Your task to perform on an android device: delete browsing data in the chrome app Image 0: 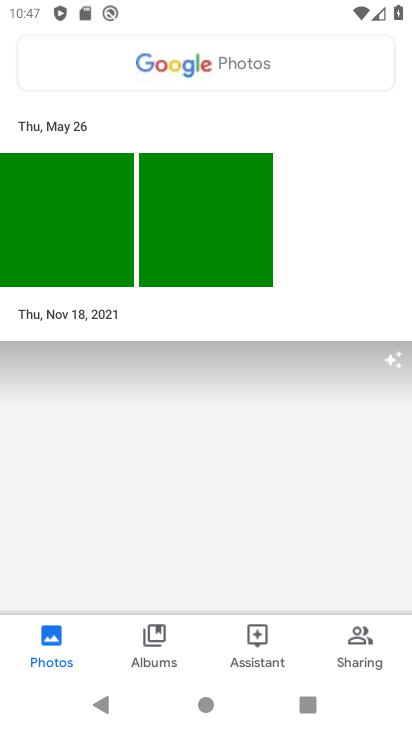
Step 0: press home button
Your task to perform on an android device: delete browsing data in the chrome app Image 1: 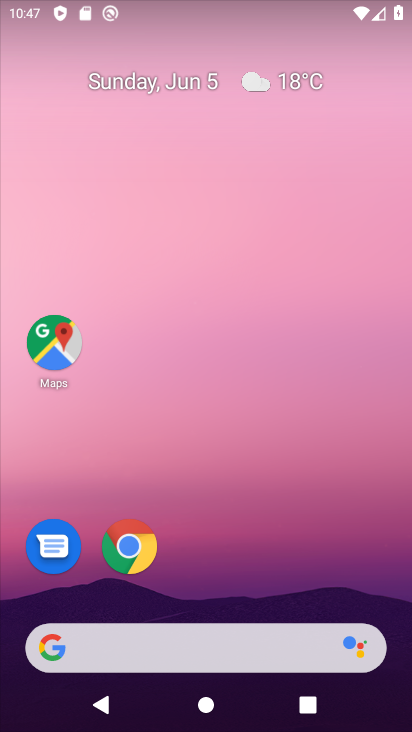
Step 1: click (121, 536)
Your task to perform on an android device: delete browsing data in the chrome app Image 2: 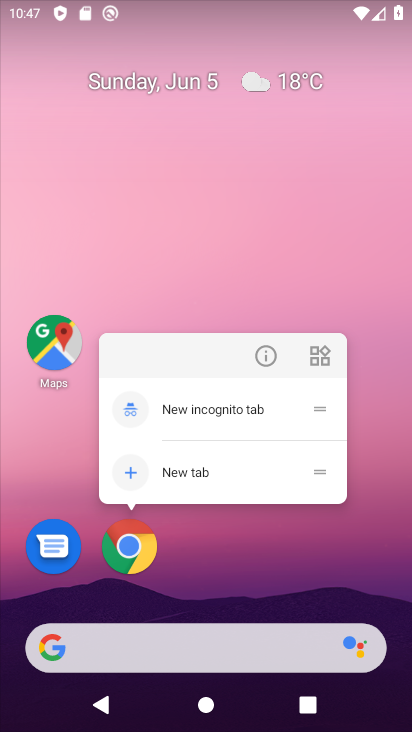
Step 2: click (142, 553)
Your task to perform on an android device: delete browsing data in the chrome app Image 3: 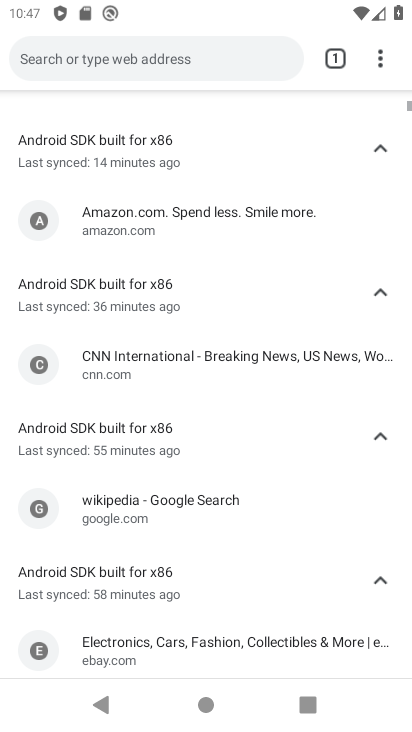
Step 3: click (380, 56)
Your task to perform on an android device: delete browsing data in the chrome app Image 4: 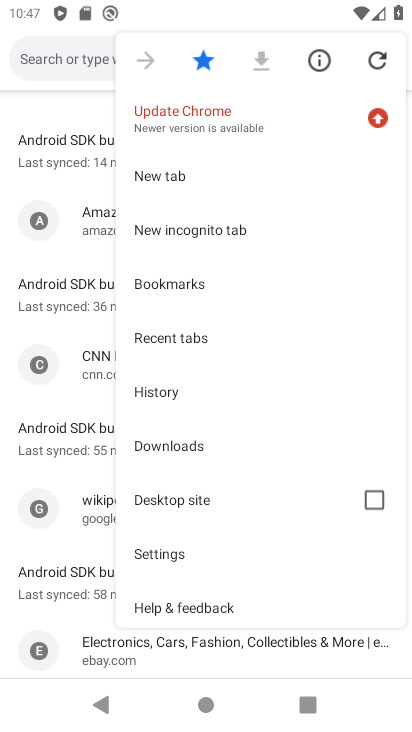
Step 4: click (174, 554)
Your task to perform on an android device: delete browsing data in the chrome app Image 5: 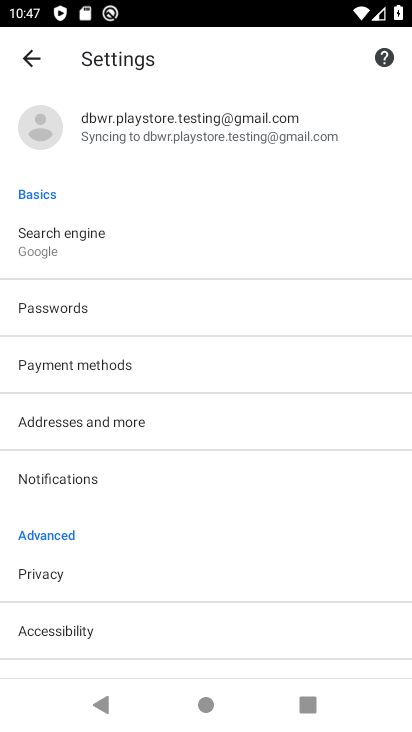
Step 5: click (86, 577)
Your task to perform on an android device: delete browsing data in the chrome app Image 6: 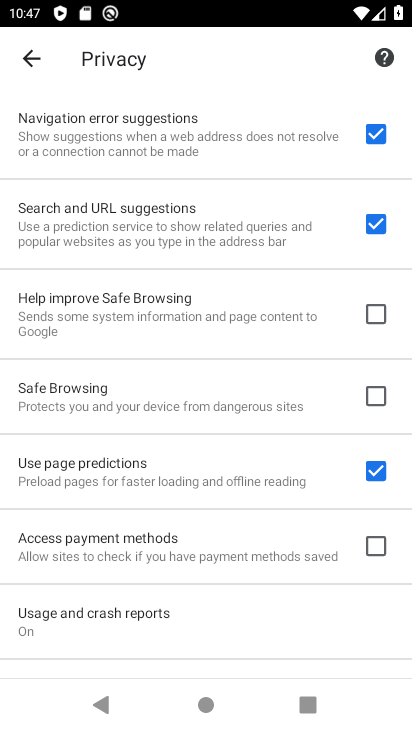
Step 6: drag from (228, 609) to (287, 170)
Your task to perform on an android device: delete browsing data in the chrome app Image 7: 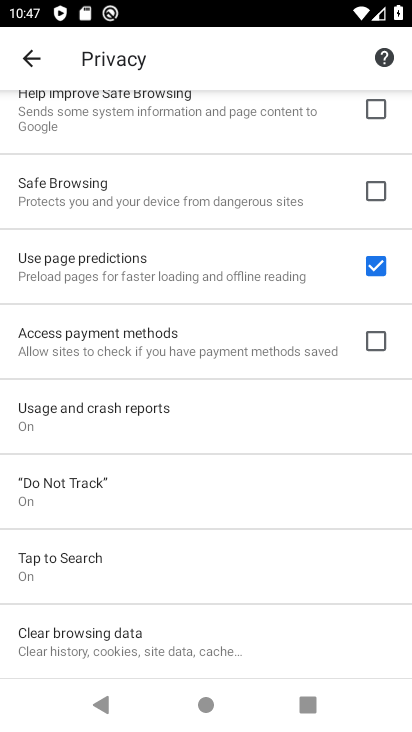
Step 7: click (131, 645)
Your task to perform on an android device: delete browsing data in the chrome app Image 8: 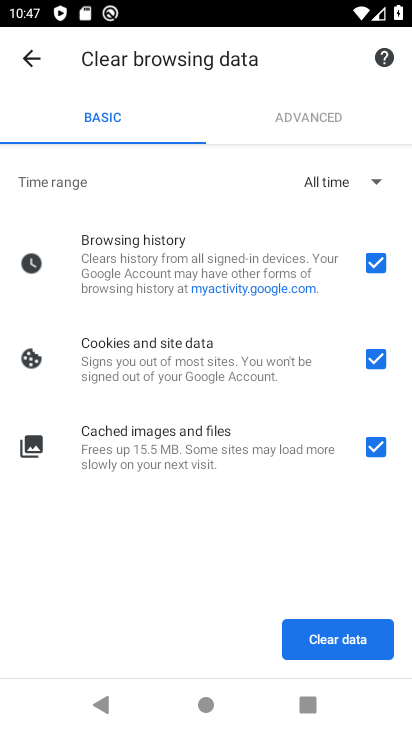
Step 8: click (383, 363)
Your task to perform on an android device: delete browsing data in the chrome app Image 9: 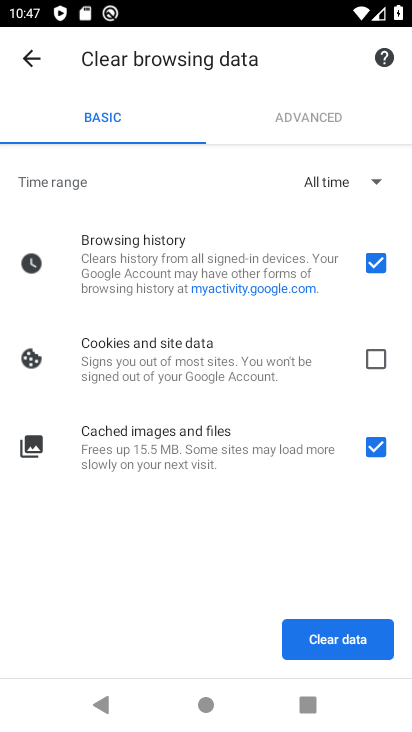
Step 9: click (378, 454)
Your task to perform on an android device: delete browsing data in the chrome app Image 10: 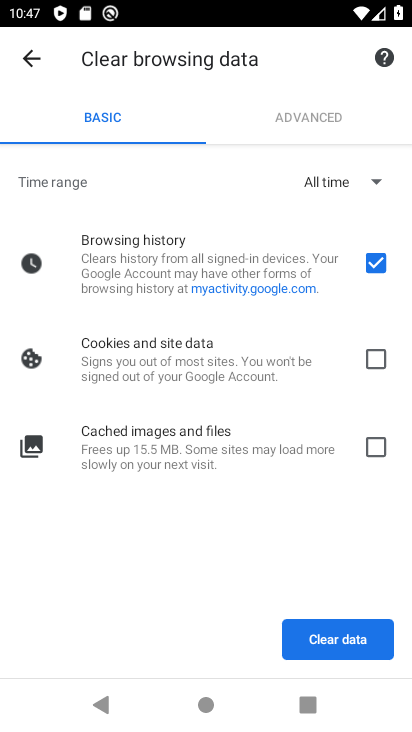
Step 10: click (320, 640)
Your task to perform on an android device: delete browsing data in the chrome app Image 11: 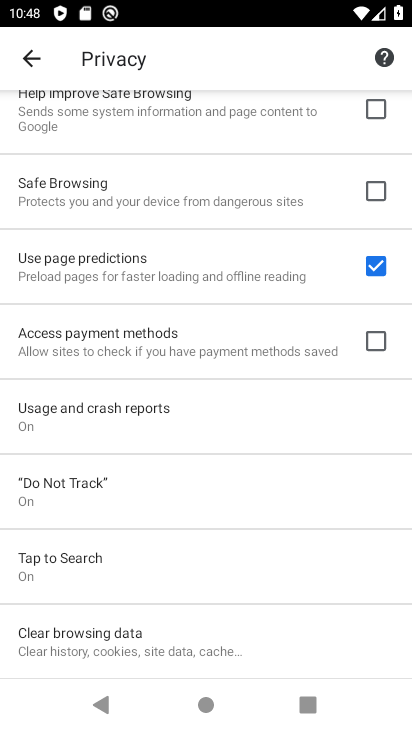
Step 11: task complete